Your task to perform on an android device: Open the map Image 0: 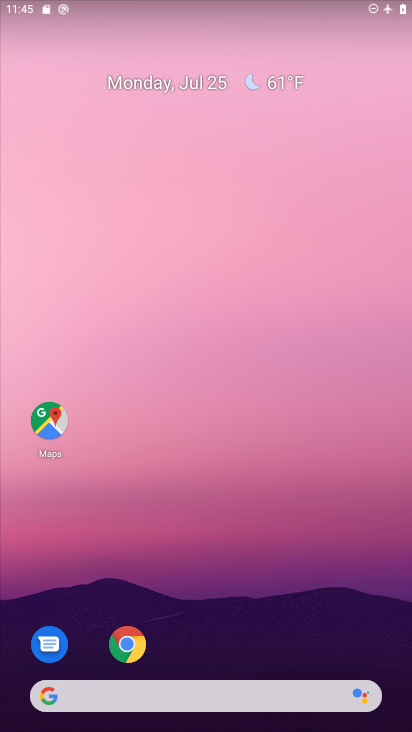
Step 0: drag from (290, 633) to (144, 188)
Your task to perform on an android device: Open the map Image 1: 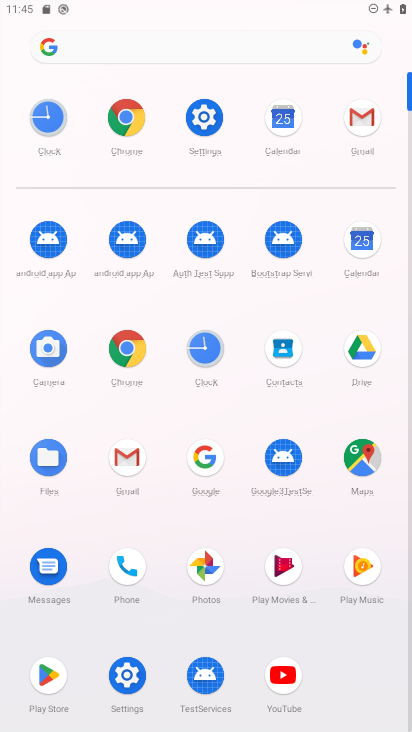
Step 1: click (359, 456)
Your task to perform on an android device: Open the map Image 2: 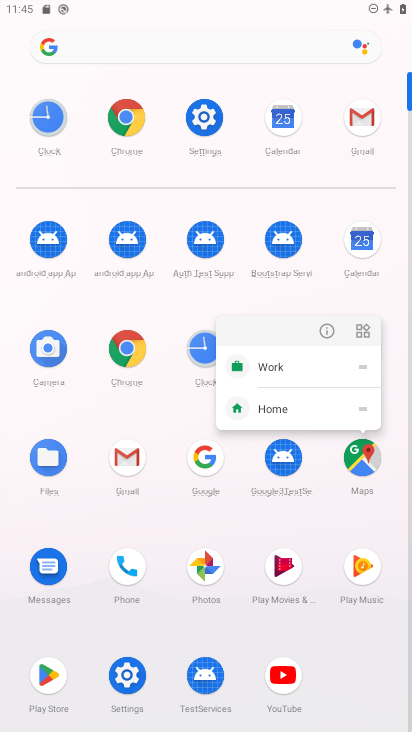
Step 2: click (359, 456)
Your task to perform on an android device: Open the map Image 3: 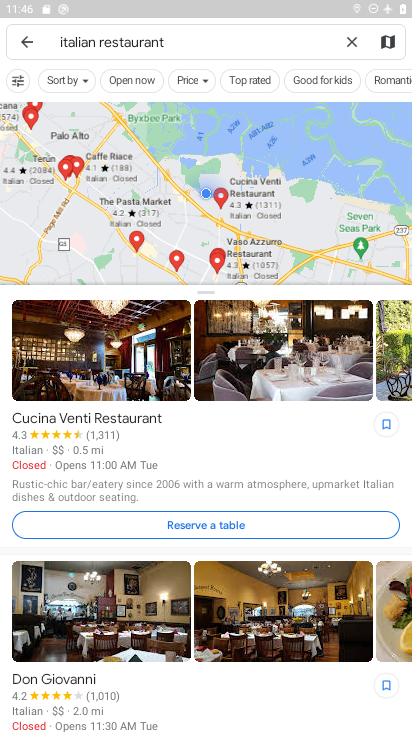
Step 3: task complete